Your task to perform on an android device: turn off location Image 0: 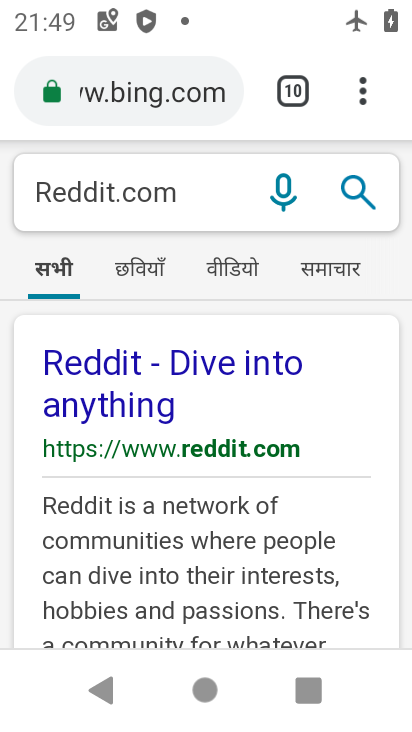
Step 0: press home button
Your task to perform on an android device: turn off location Image 1: 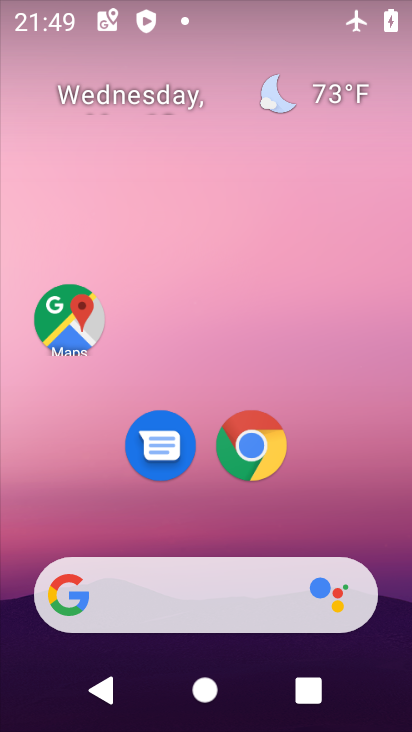
Step 1: drag from (273, 518) to (289, 271)
Your task to perform on an android device: turn off location Image 2: 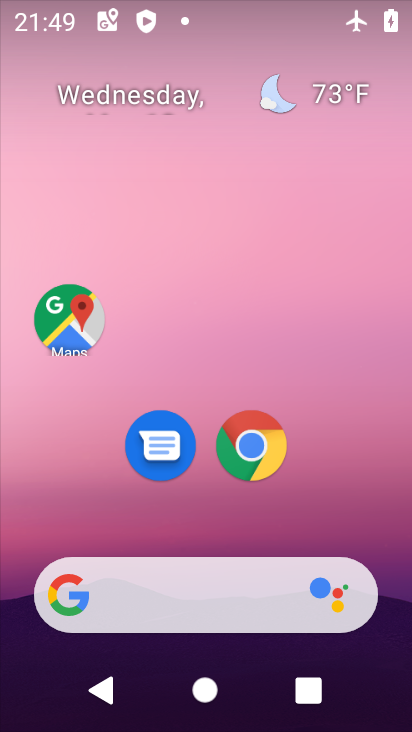
Step 2: drag from (210, 486) to (197, 177)
Your task to perform on an android device: turn off location Image 3: 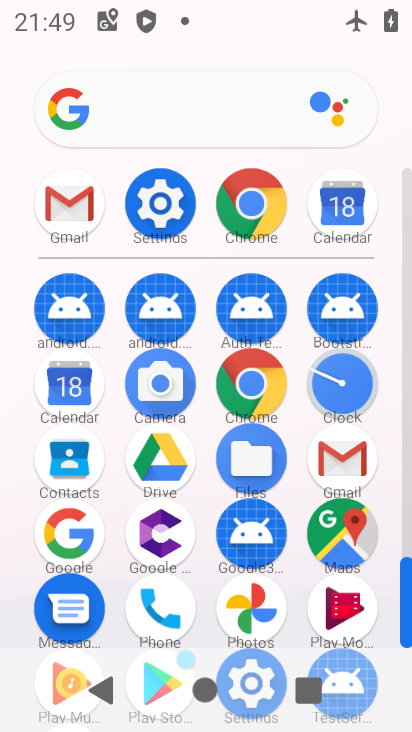
Step 3: click (153, 202)
Your task to perform on an android device: turn off location Image 4: 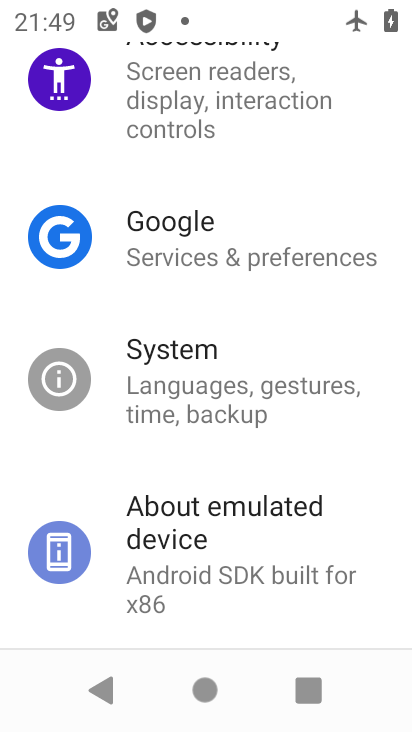
Step 4: drag from (249, 140) to (223, 578)
Your task to perform on an android device: turn off location Image 5: 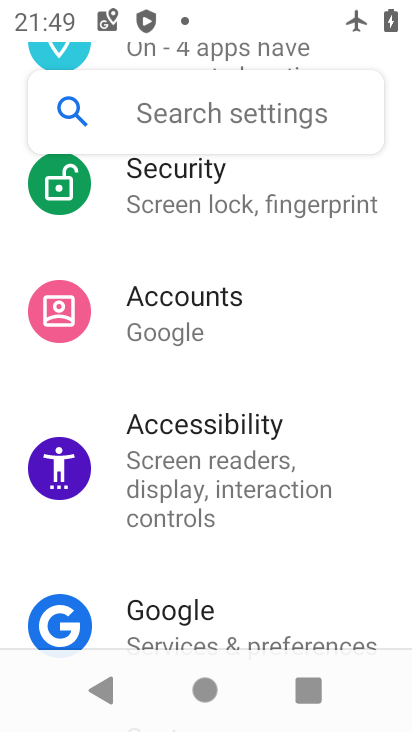
Step 5: drag from (207, 228) to (257, 601)
Your task to perform on an android device: turn off location Image 6: 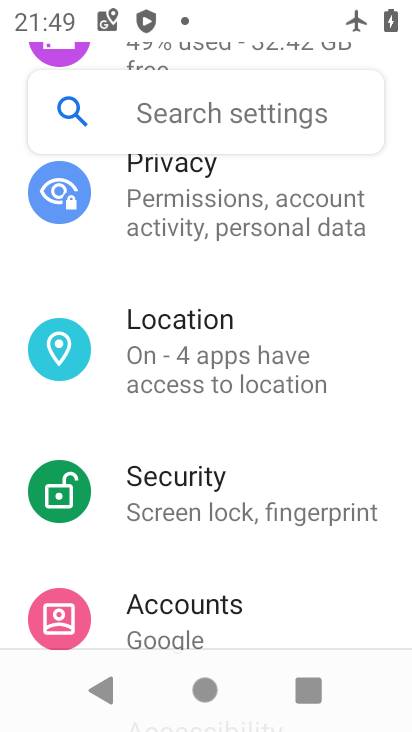
Step 6: click (229, 367)
Your task to perform on an android device: turn off location Image 7: 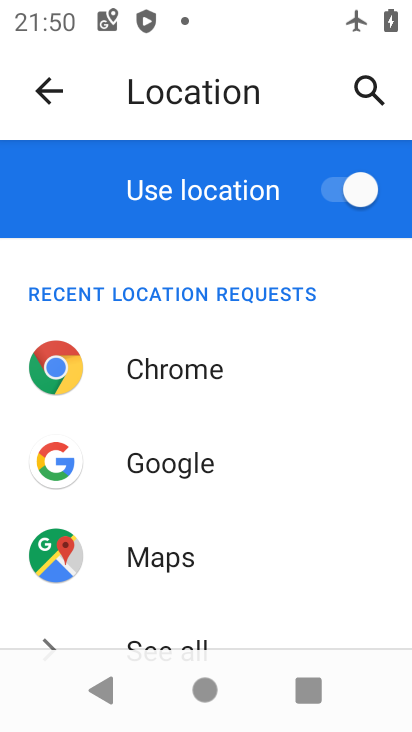
Step 7: drag from (235, 586) to (259, 300)
Your task to perform on an android device: turn off location Image 8: 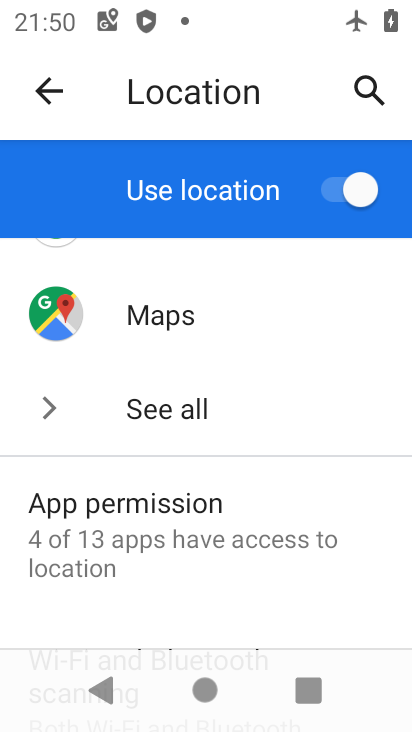
Step 8: click (328, 167)
Your task to perform on an android device: turn off location Image 9: 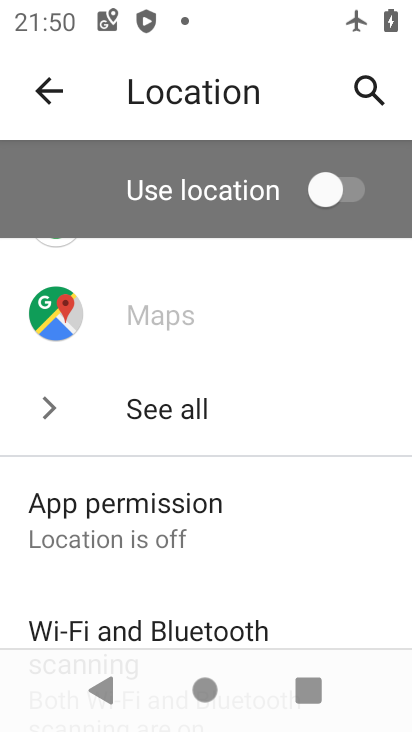
Step 9: task complete